Your task to perform on an android device: Open the Play Movies app and select the watchlist tab. Image 0: 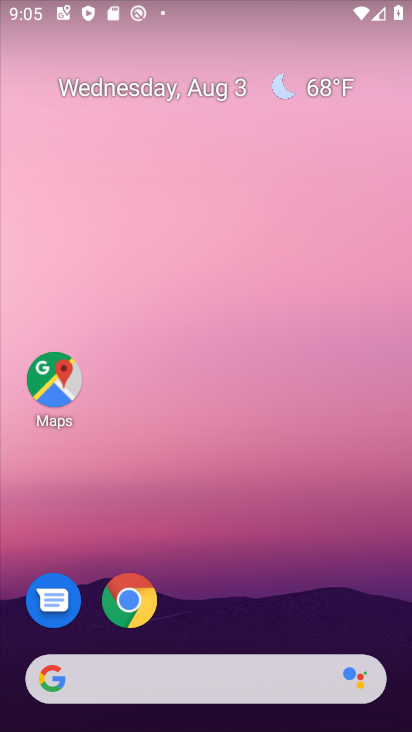
Step 0: drag from (230, 633) to (218, 12)
Your task to perform on an android device: Open the Play Movies app and select the watchlist tab. Image 1: 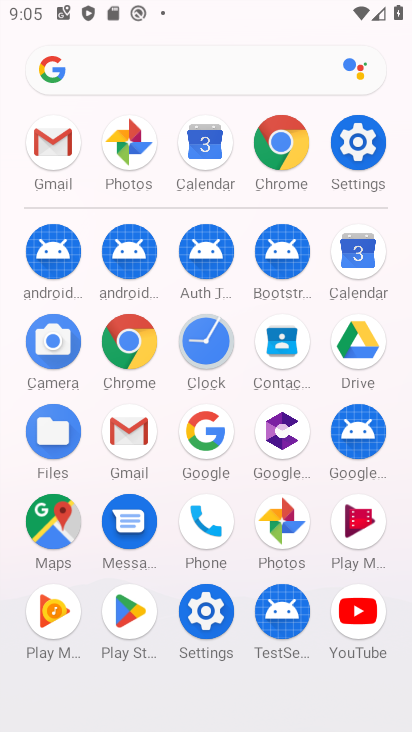
Step 1: click (354, 521)
Your task to perform on an android device: Open the Play Movies app and select the watchlist tab. Image 2: 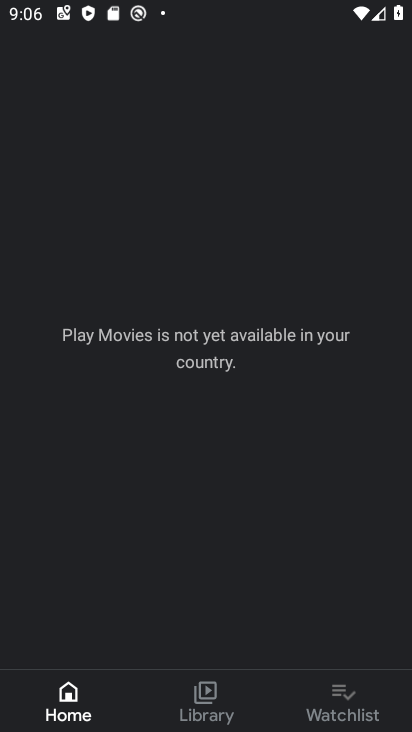
Step 2: click (359, 707)
Your task to perform on an android device: Open the Play Movies app and select the watchlist tab. Image 3: 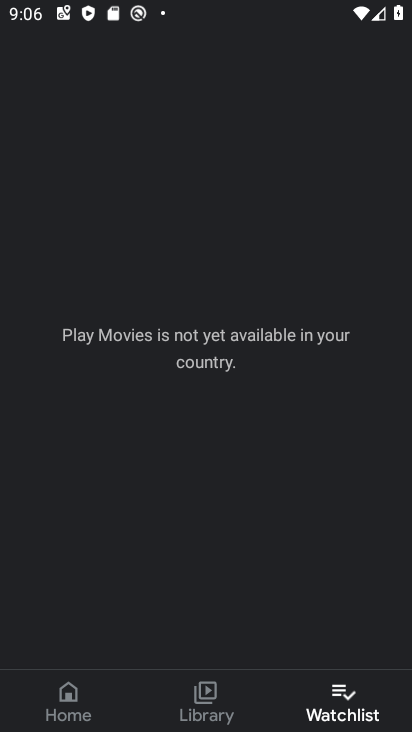
Step 3: task complete